Your task to perform on an android device: add a label to a message in the gmail app Image 0: 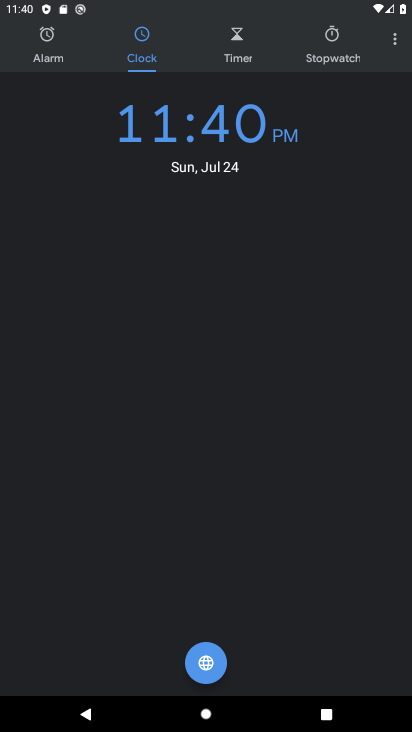
Step 0: press home button
Your task to perform on an android device: add a label to a message in the gmail app Image 1: 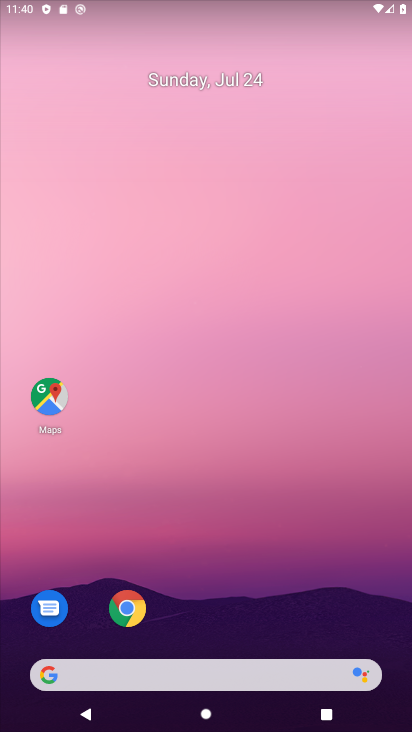
Step 1: drag from (203, 661) to (263, 89)
Your task to perform on an android device: add a label to a message in the gmail app Image 2: 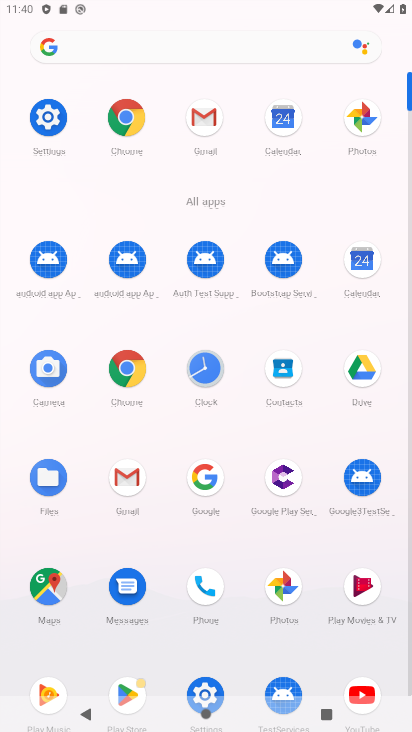
Step 2: click (135, 497)
Your task to perform on an android device: add a label to a message in the gmail app Image 3: 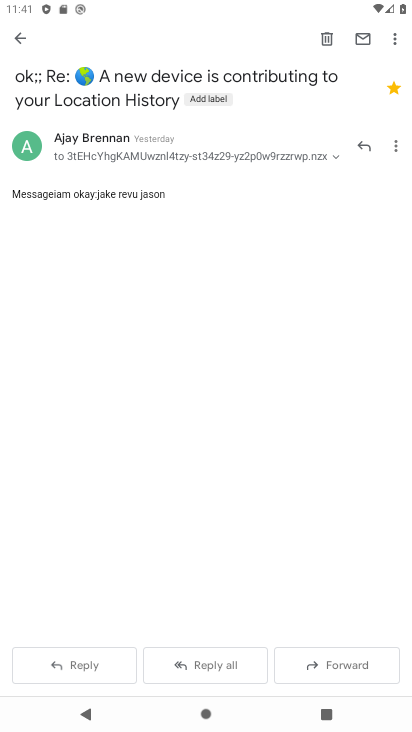
Step 3: click (17, 36)
Your task to perform on an android device: add a label to a message in the gmail app Image 4: 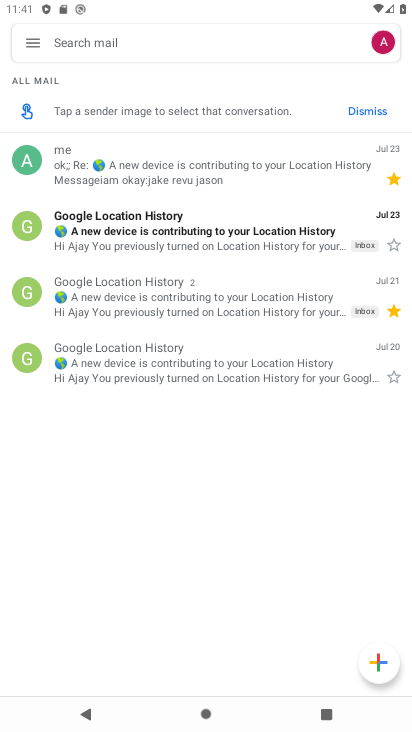
Step 4: click (159, 239)
Your task to perform on an android device: add a label to a message in the gmail app Image 5: 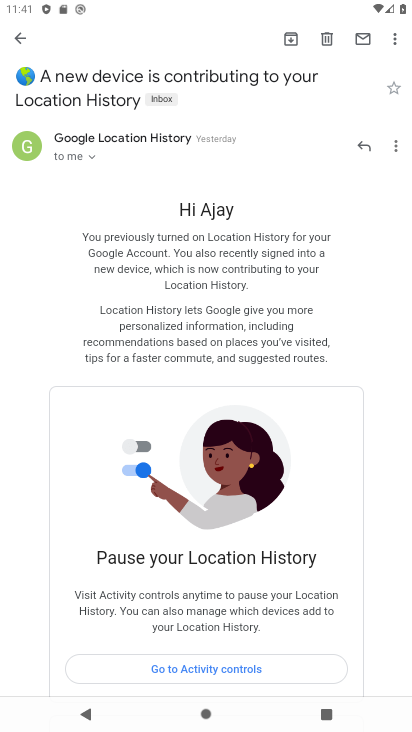
Step 5: click (396, 46)
Your task to perform on an android device: add a label to a message in the gmail app Image 6: 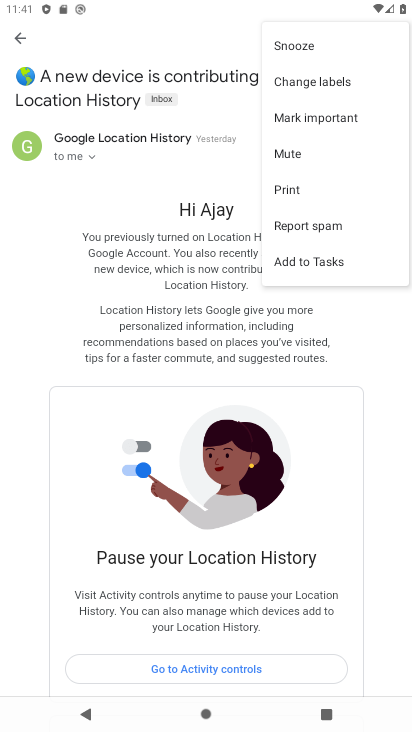
Step 6: click (302, 77)
Your task to perform on an android device: add a label to a message in the gmail app Image 7: 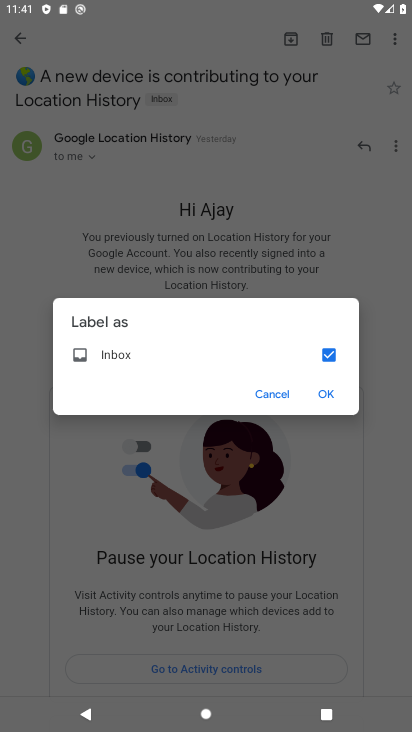
Step 7: click (316, 392)
Your task to perform on an android device: add a label to a message in the gmail app Image 8: 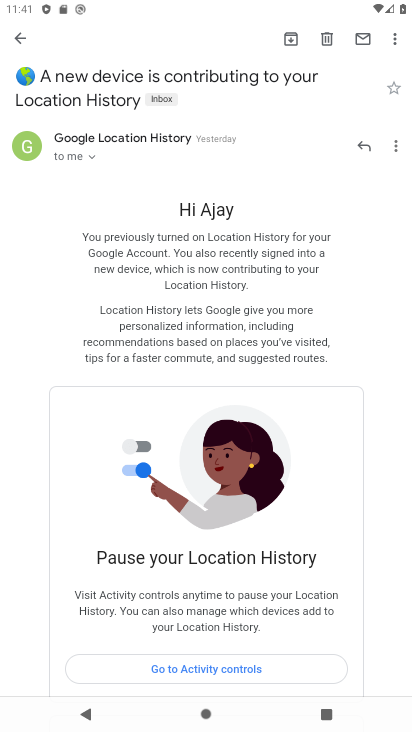
Step 8: task complete